Your task to perform on an android device: set the stopwatch Image 0: 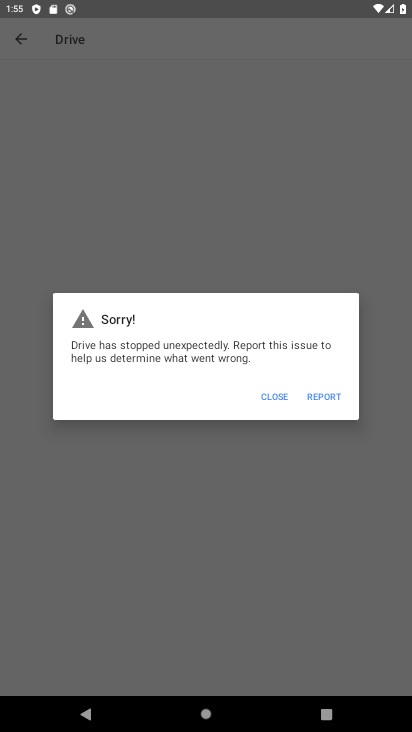
Step 0: click (192, 709)
Your task to perform on an android device: set the stopwatch Image 1: 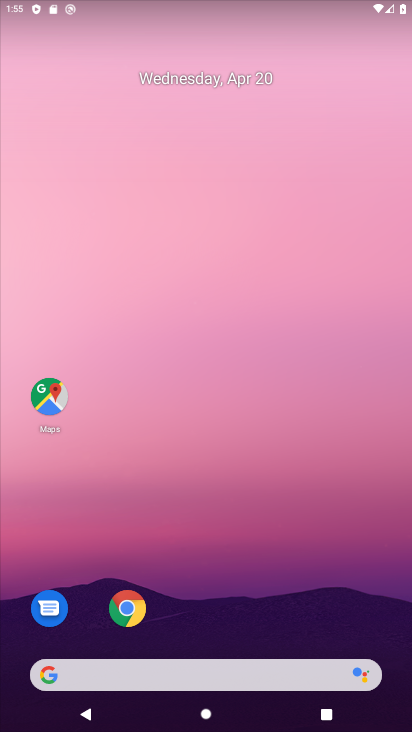
Step 1: drag from (218, 640) to (210, 159)
Your task to perform on an android device: set the stopwatch Image 2: 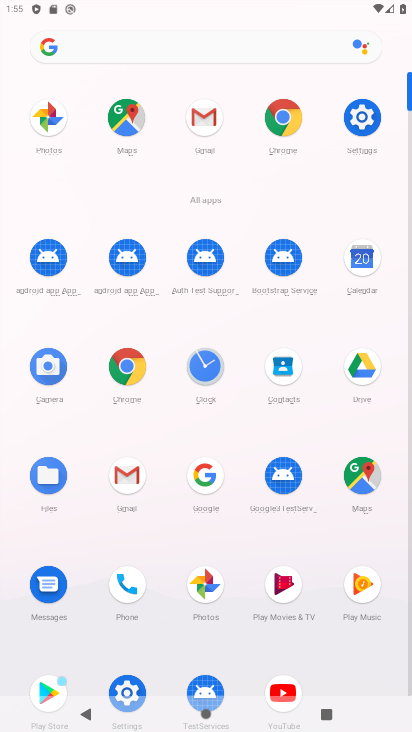
Step 2: click (207, 361)
Your task to perform on an android device: set the stopwatch Image 3: 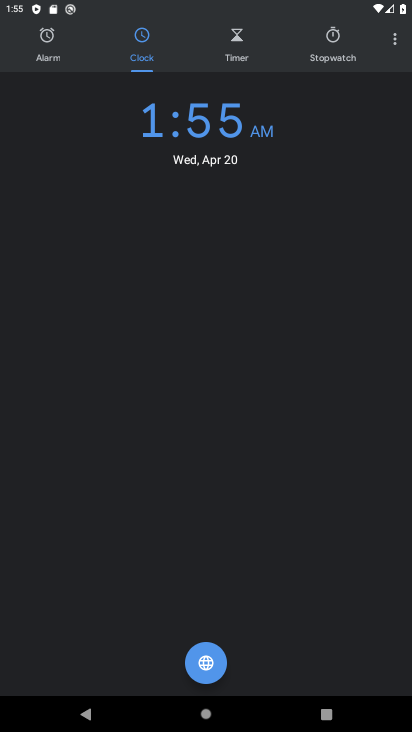
Step 3: click (321, 27)
Your task to perform on an android device: set the stopwatch Image 4: 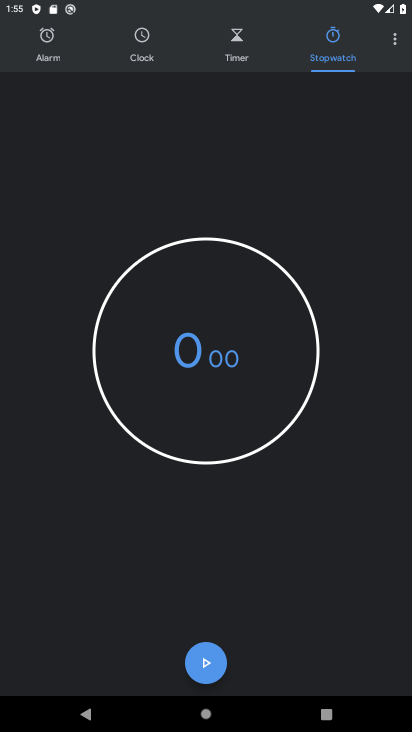
Step 4: task complete